Your task to perform on an android device: empty trash in the gmail app Image 0: 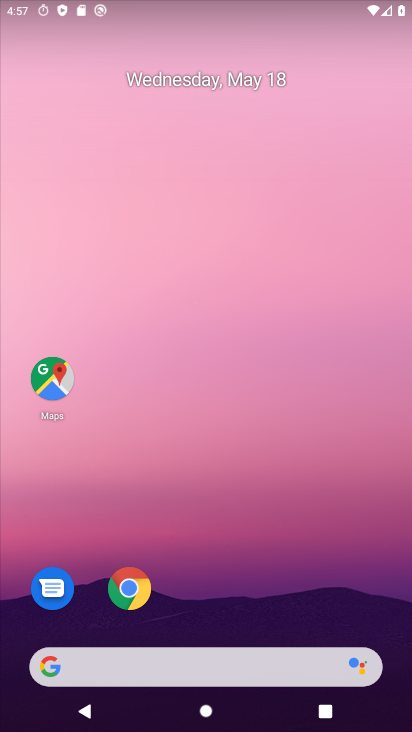
Step 0: drag from (254, 571) to (240, 67)
Your task to perform on an android device: empty trash in the gmail app Image 1: 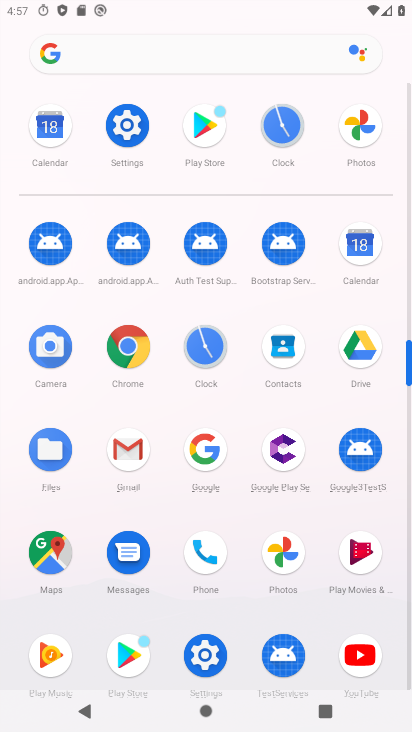
Step 1: click (123, 442)
Your task to perform on an android device: empty trash in the gmail app Image 2: 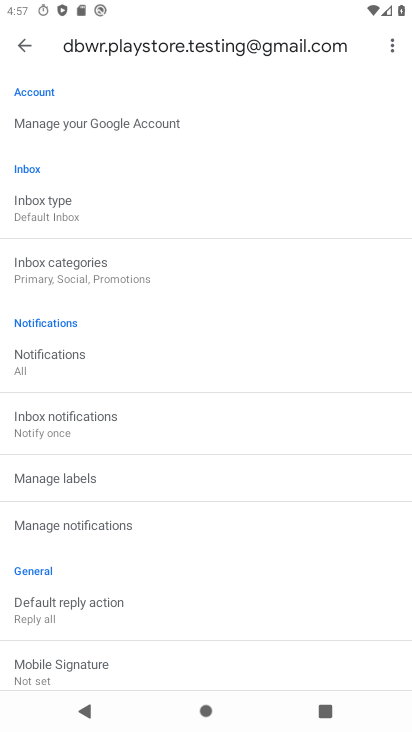
Step 2: click (25, 38)
Your task to perform on an android device: empty trash in the gmail app Image 3: 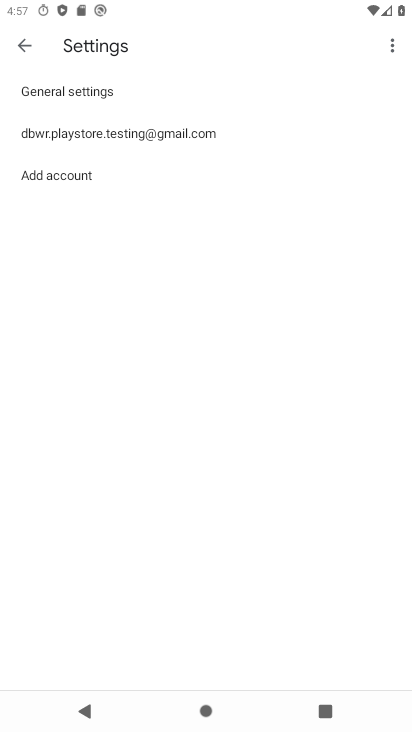
Step 3: click (21, 40)
Your task to perform on an android device: empty trash in the gmail app Image 4: 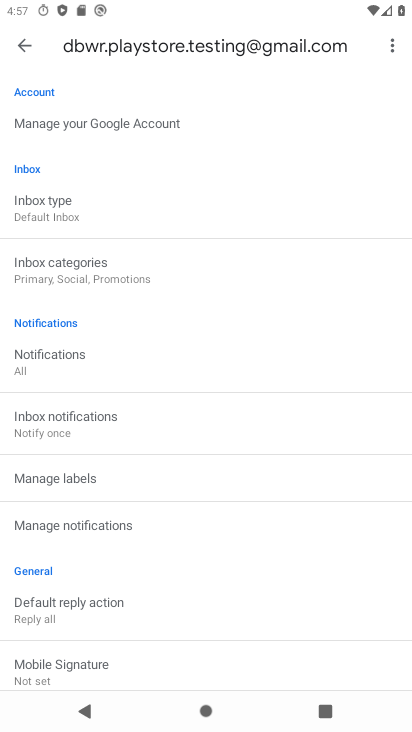
Step 4: click (27, 39)
Your task to perform on an android device: empty trash in the gmail app Image 5: 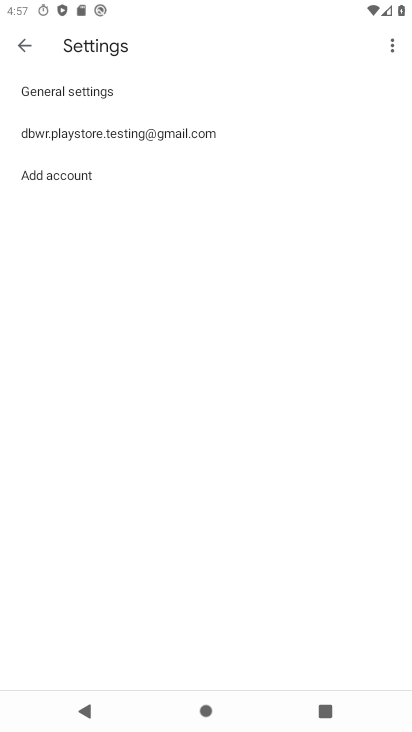
Step 5: click (15, 46)
Your task to perform on an android device: empty trash in the gmail app Image 6: 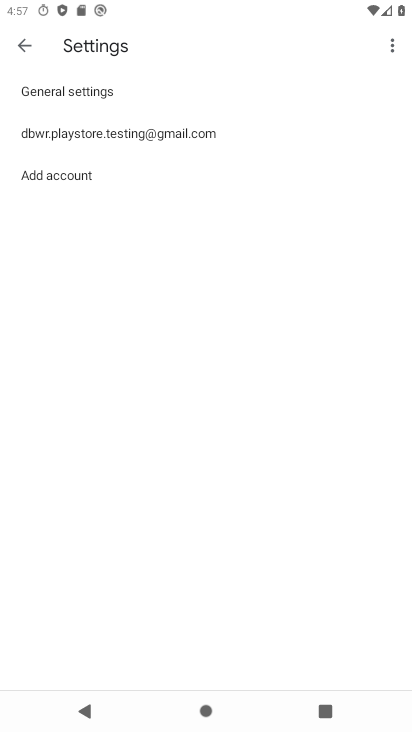
Step 6: click (16, 42)
Your task to perform on an android device: empty trash in the gmail app Image 7: 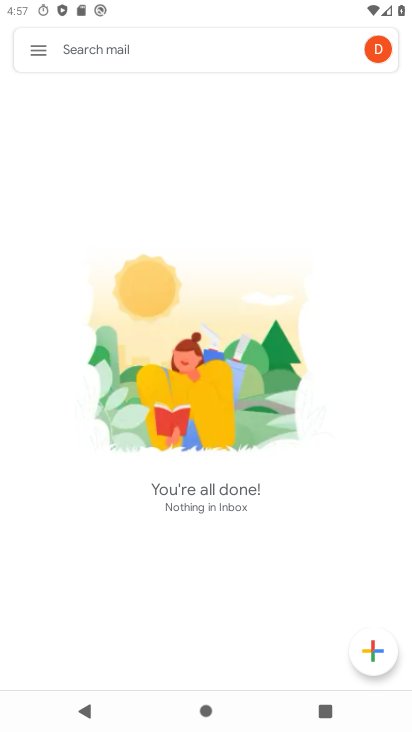
Step 7: click (34, 49)
Your task to perform on an android device: empty trash in the gmail app Image 8: 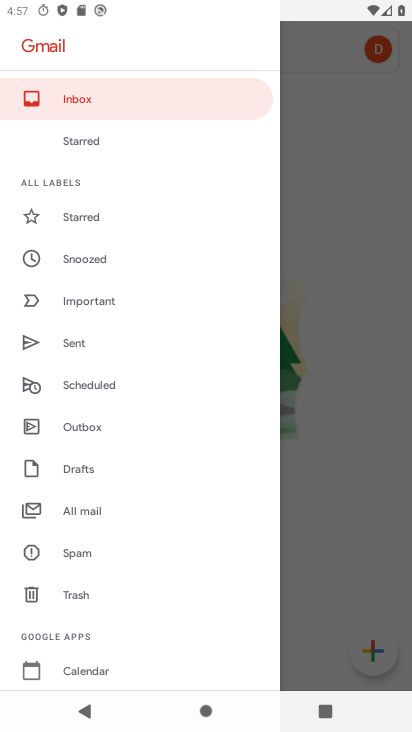
Step 8: click (71, 595)
Your task to perform on an android device: empty trash in the gmail app Image 9: 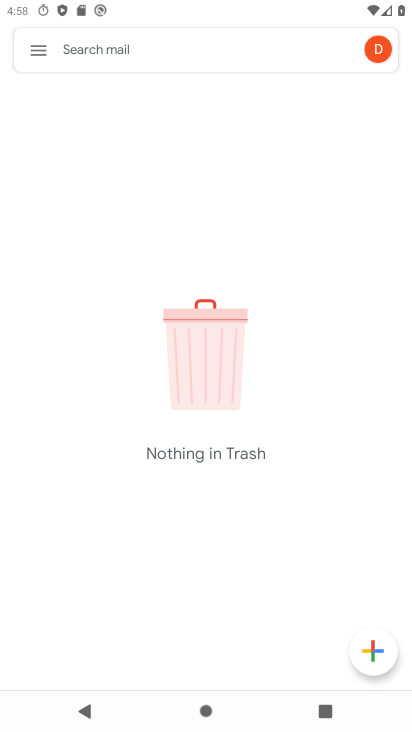
Step 9: task complete